Your task to perform on an android device: delete browsing data in the chrome app Image 0: 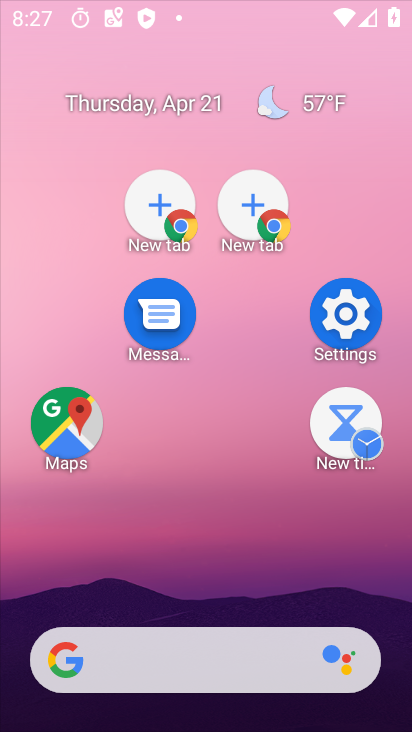
Step 0: click (287, 36)
Your task to perform on an android device: delete browsing data in the chrome app Image 1: 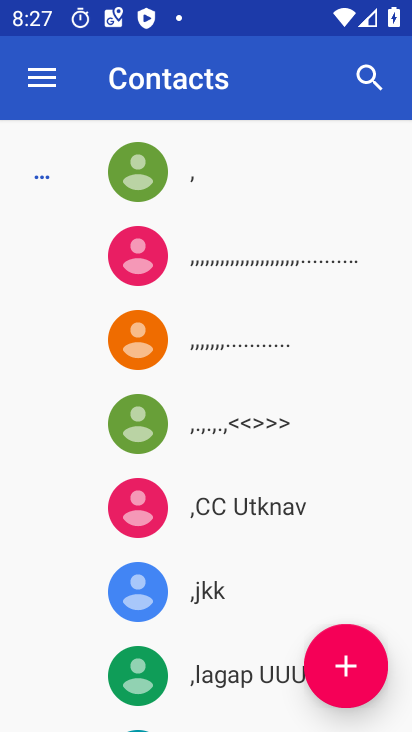
Step 1: press home button
Your task to perform on an android device: delete browsing data in the chrome app Image 2: 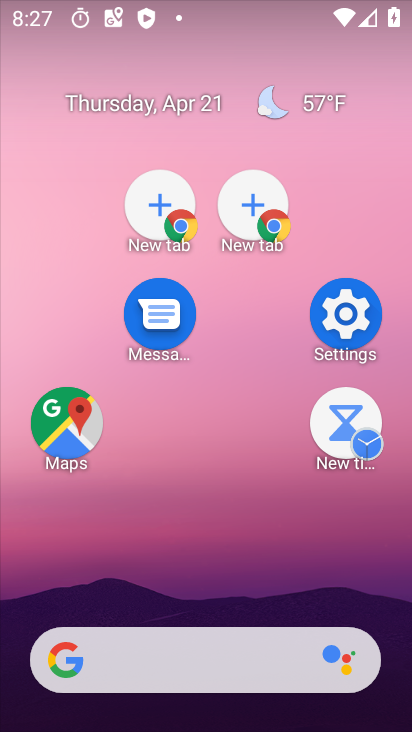
Step 2: drag from (344, 563) to (112, 43)
Your task to perform on an android device: delete browsing data in the chrome app Image 3: 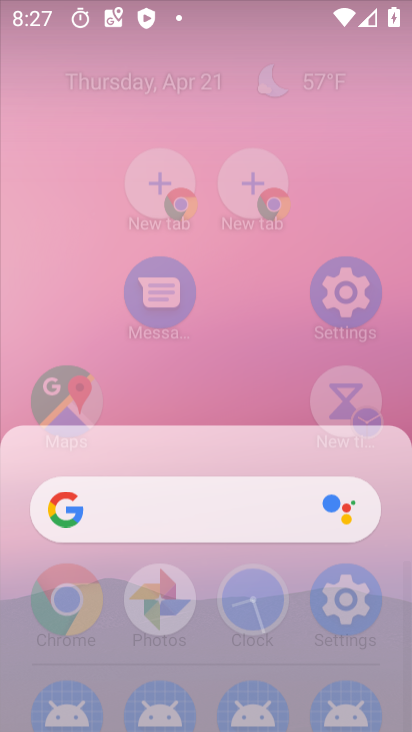
Step 3: drag from (290, 426) to (220, 26)
Your task to perform on an android device: delete browsing data in the chrome app Image 4: 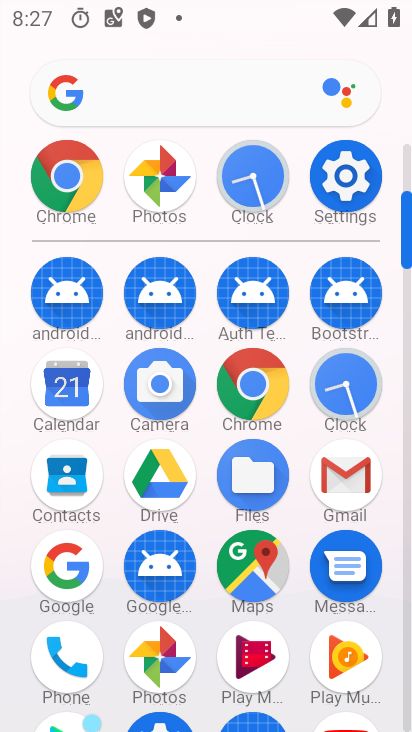
Step 4: click (257, 372)
Your task to perform on an android device: delete browsing data in the chrome app Image 5: 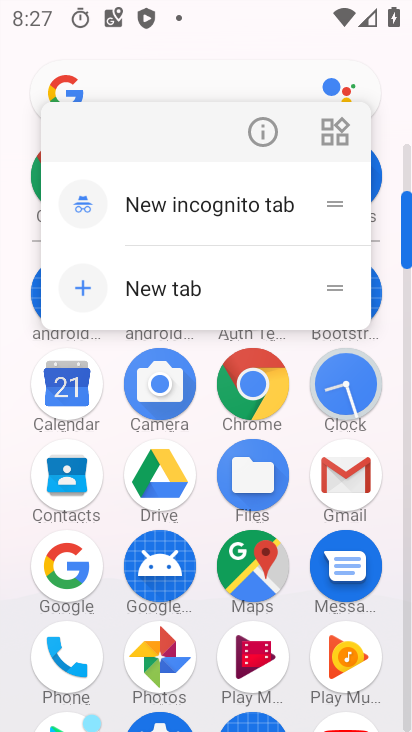
Step 5: click (254, 381)
Your task to perform on an android device: delete browsing data in the chrome app Image 6: 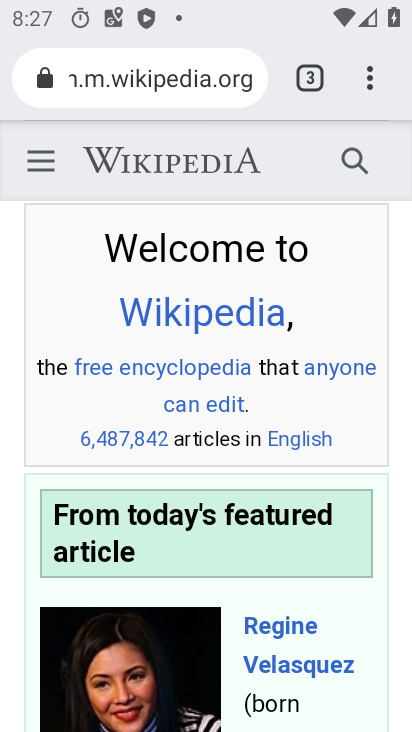
Step 6: click (367, 74)
Your task to perform on an android device: delete browsing data in the chrome app Image 7: 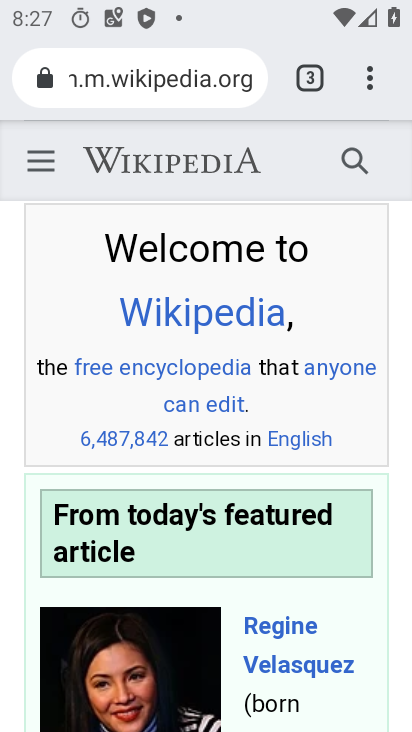
Step 7: drag from (367, 74) to (101, 534)
Your task to perform on an android device: delete browsing data in the chrome app Image 8: 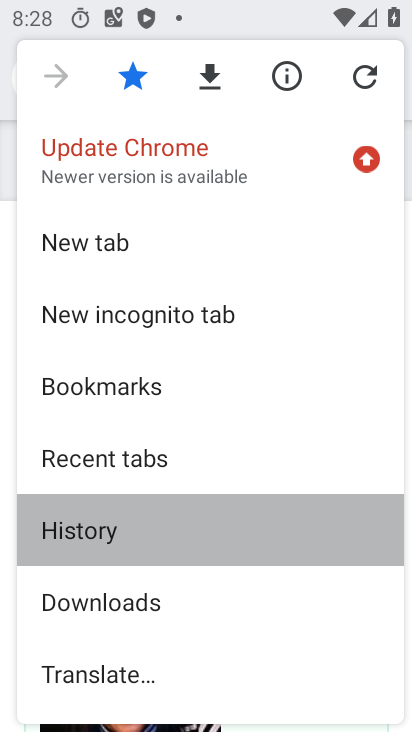
Step 8: click (103, 533)
Your task to perform on an android device: delete browsing data in the chrome app Image 9: 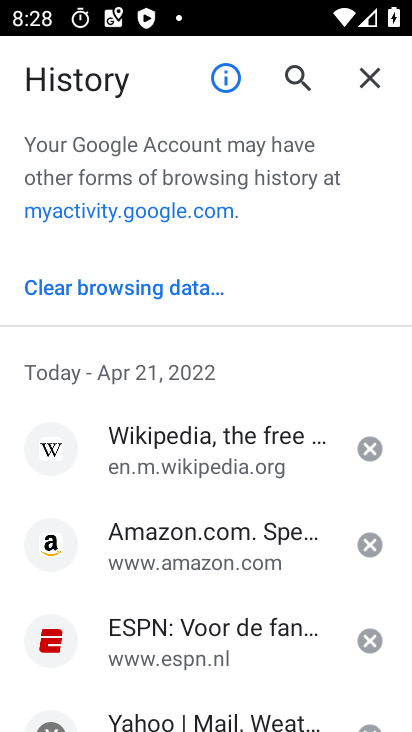
Step 9: click (158, 285)
Your task to perform on an android device: delete browsing data in the chrome app Image 10: 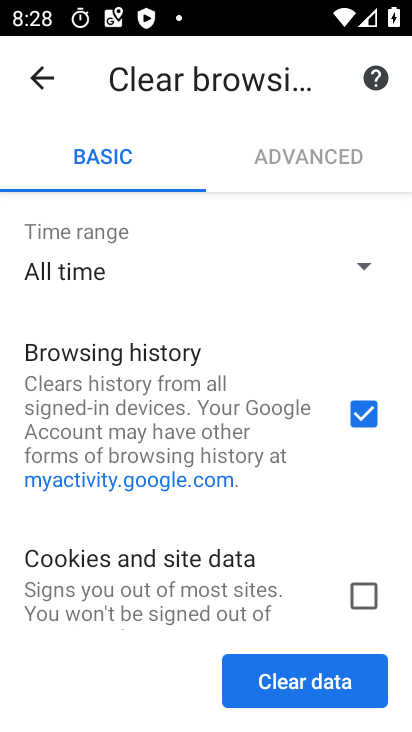
Step 10: click (310, 677)
Your task to perform on an android device: delete browsing data in the chrome app Image 11: 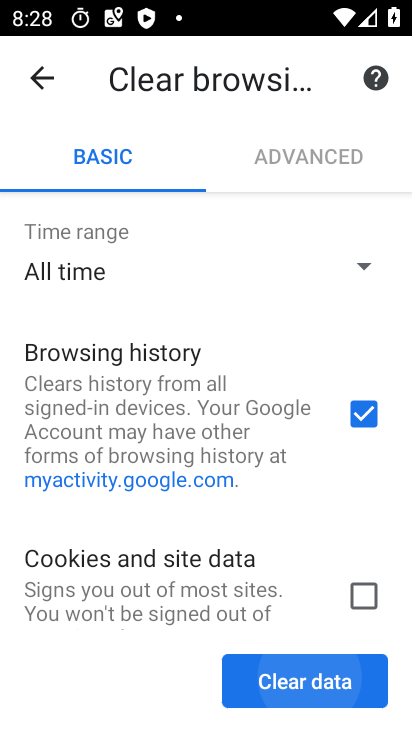
Step 11: click (308, 687)
Your task to perform on an android device: delete browsing data in the chrome app Image 12: 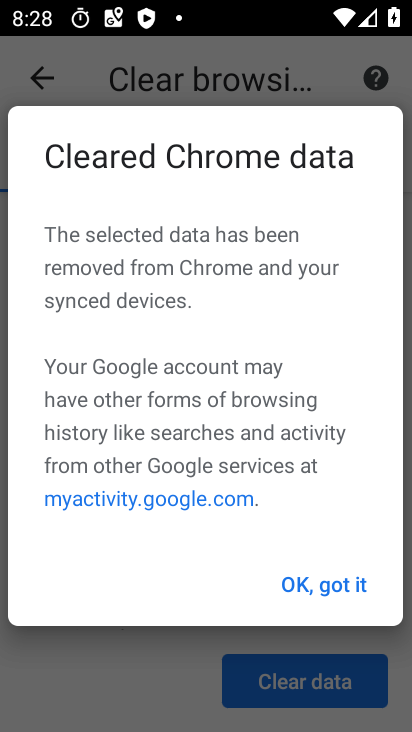
Step 12: click (350, 581)
Your task to perform on an android device: delete browsing data in the chrome app Image 13: 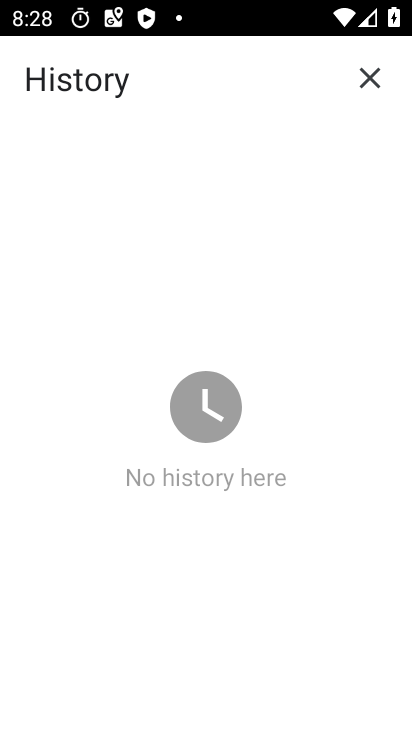
Step 13: task complete